Your task to perform on an android device: open wifi settings Image 0: 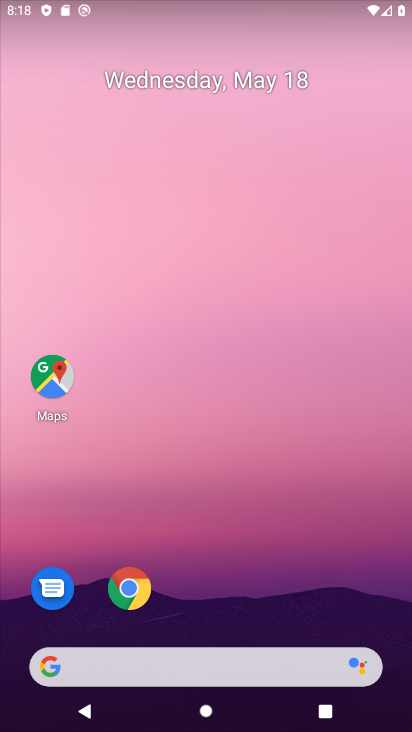
Step 0: drag from (360, 586) to (347, 135)
Your task to perform on an android device: open wifi settings Image 1: 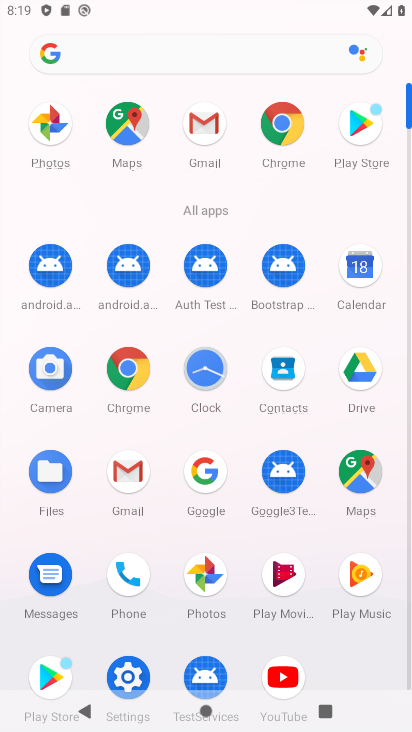
Step 1: click (124, 673)
Your task to perform on an android device: open wifi settings Image 2: 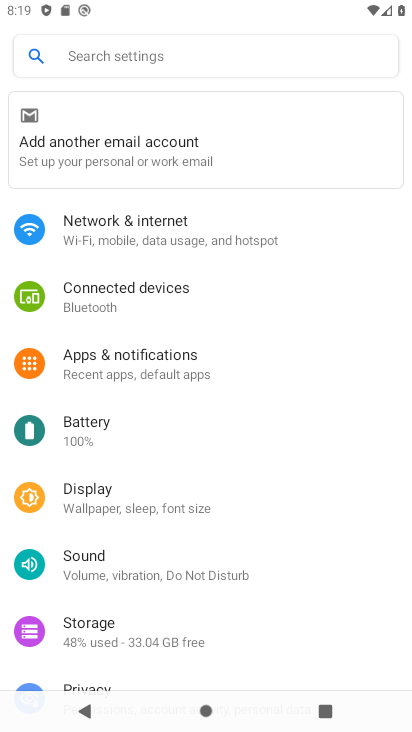
Step 2: drag from (332, 620) to (342, 264)
Your task to perform on an android device: open wifi settings Image 3: 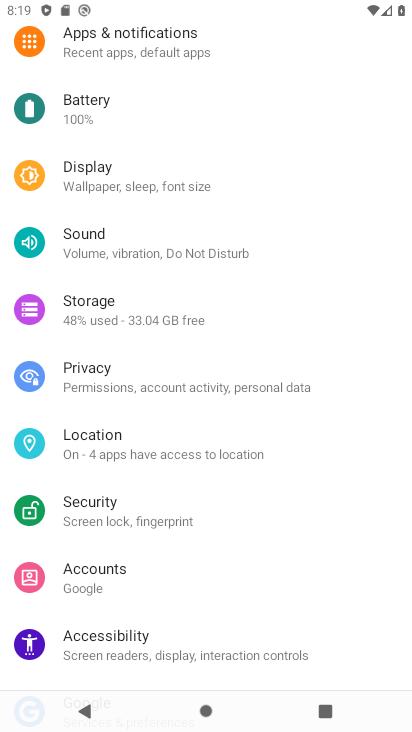
Step 3: drag from (286, 211) to (267, 565)
Your task to perform on an android device: open wifi settings Image 4: 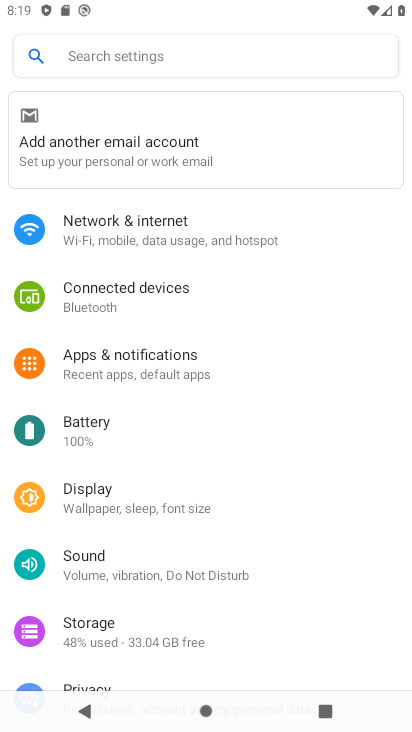
Step 4: click (168, 235)
Your task to perform on an android device: open wifi settings Image 5: 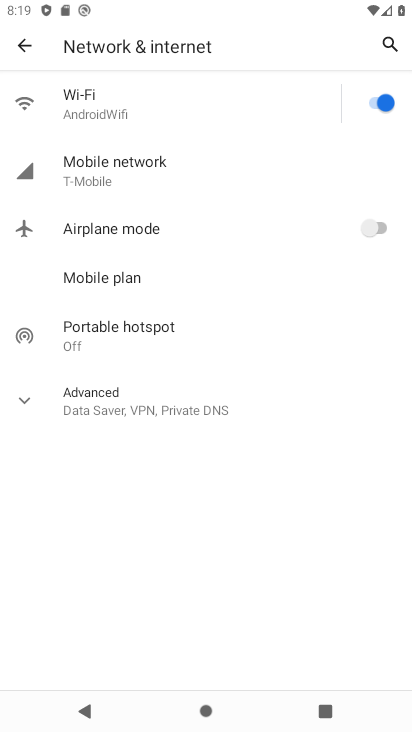
Step 5: click (125, 95)
Your task to perform on an android device: open wifi settings Image 6: 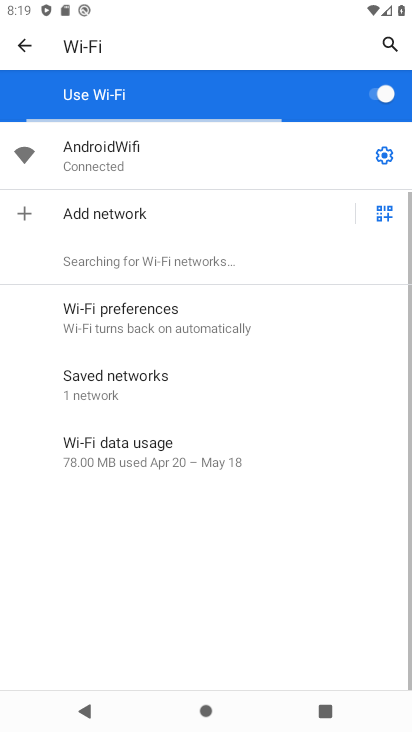
Step 6: click (389, 147)
Your task to perform on an android device: open wifi settings Image 7: 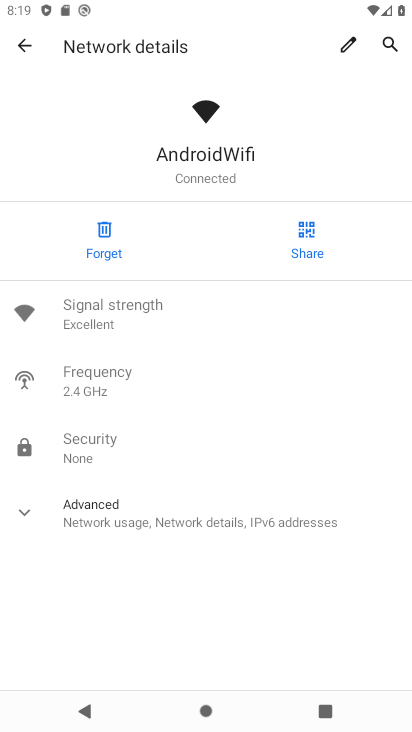
Step 7: task complete